Your task to perform on an android device: Search for Italian restaurants on Maps Image 0: 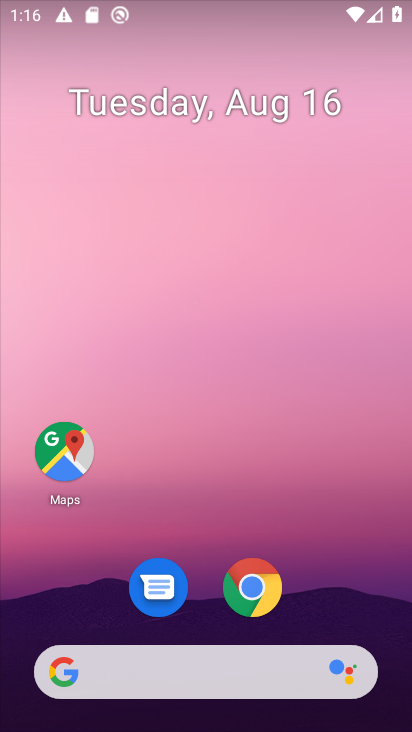
Step 0: drag from (217, 297) to (224, 255)
Your task to perform on an android device: Search for Italian restaurants on Maps Image 1: 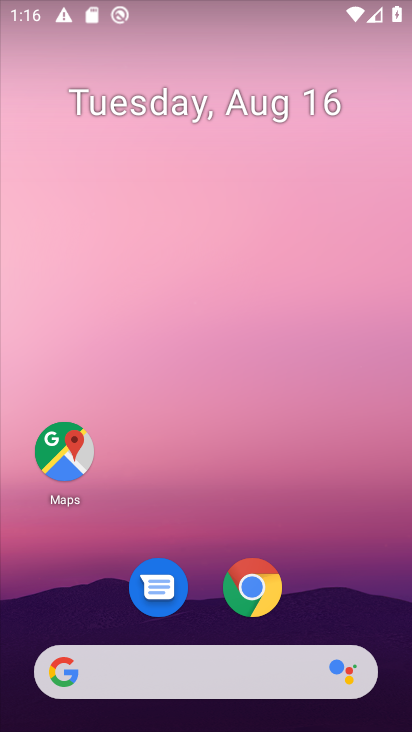
Step 1: click (87, 454)
Your task to perform on an android device: Search for Italian restaurants on Maps Image 2: 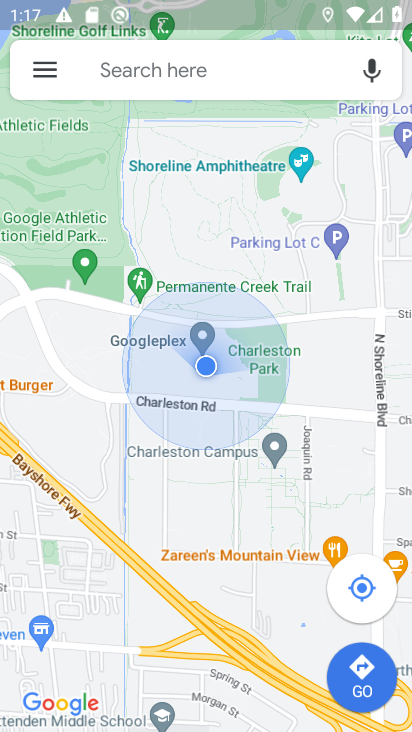
Step 2: click (216, 70)
Your task to perform on an android device: Search for Italian restaurants on Maps Image 3: 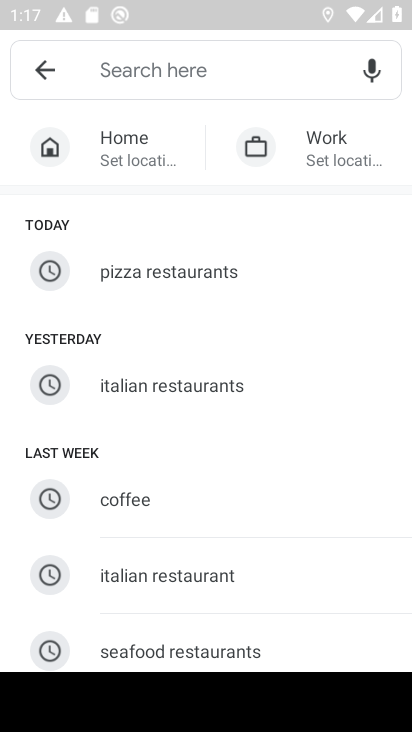
Step 3: click (139, 381)
Your task to perform on an android device: Search for Italian restaurants on Maps Image 4: 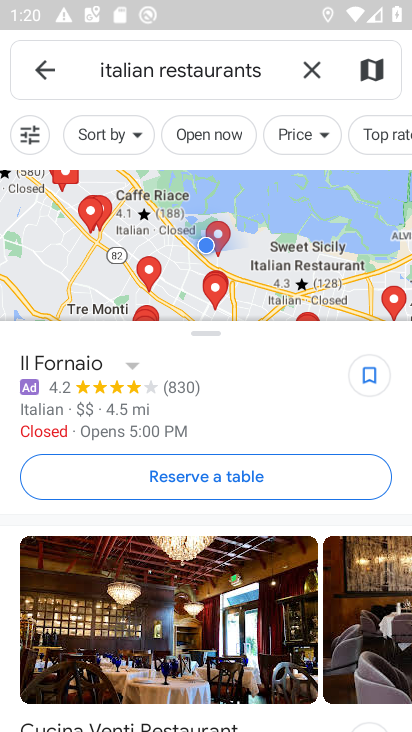
Step 4: task complete